Your task to perform on an android device: turn off improve location accuracy Image 0: 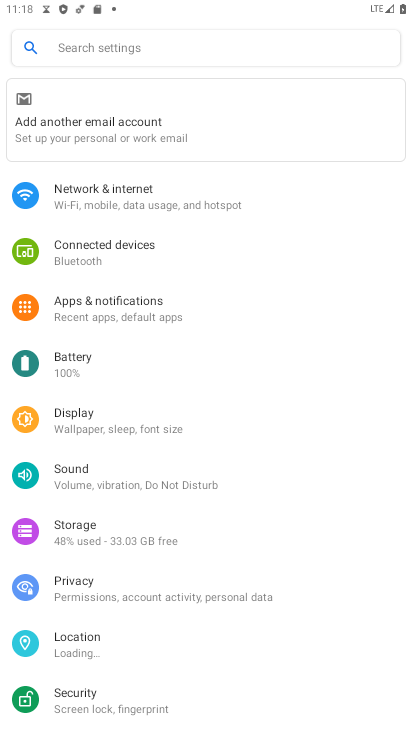
Step 0: press back button
Your task to perform on an android device: turn off improve location accuracy Image 1: 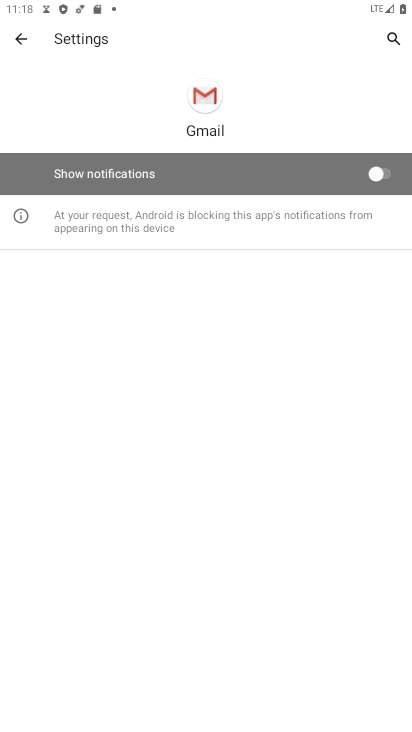
Step 1: press back button
Your task to perform on an android device: turn off improve location accuracy Image 2: 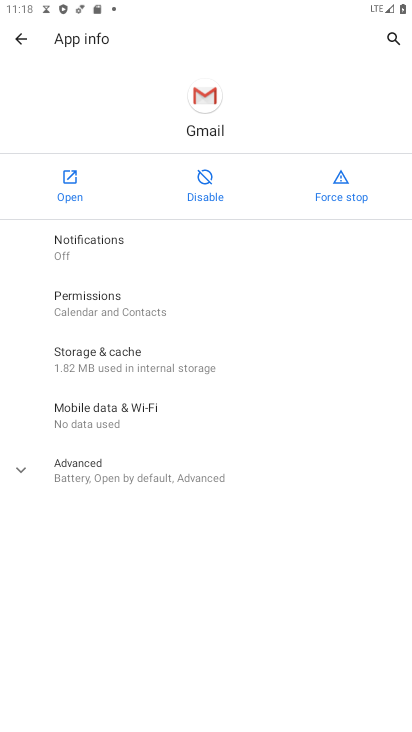
Step 2: press back button
Your task to perform on an android device: turn off improve location accuracy Image 3: 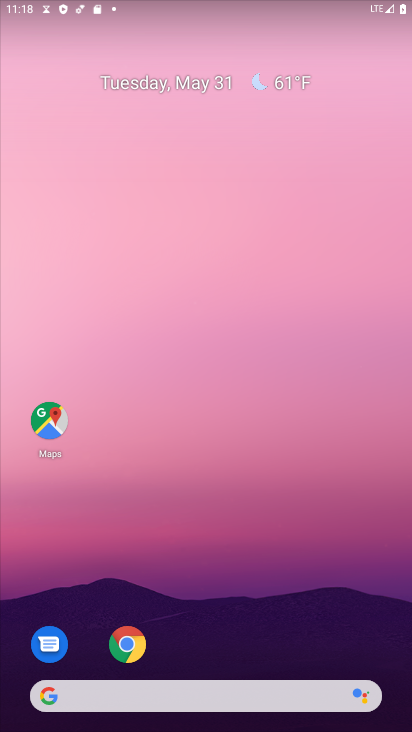
Step 3: drag from (232, 614) to (286, 99)
Your task to perform on an android device: turn off improve location accuracy Image 4: 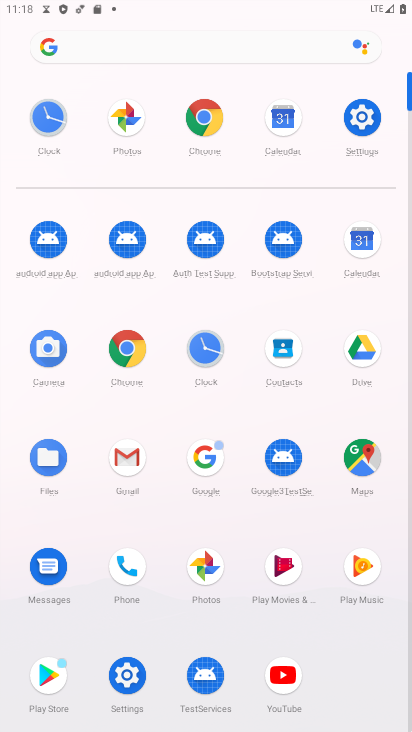
Step 4: click (364, 115)
Your task to perform on an android device: turn off improve location accuracy Image 5: 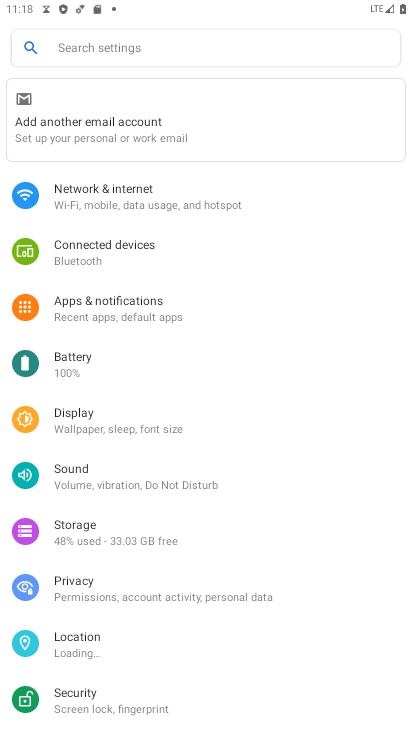
Step 5: click (80, 636)
Your task to perform on an android device: turn off improve location accuracy Image 6: 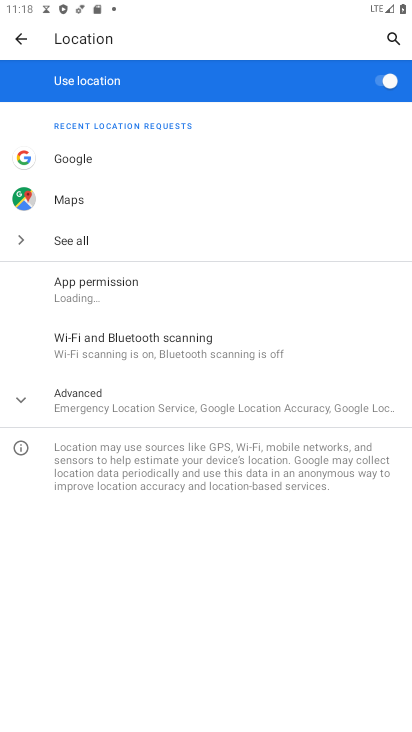
Step 6: click (131, 404)
Your task to perform on an android device: turn off improve location accuracy Image 7: 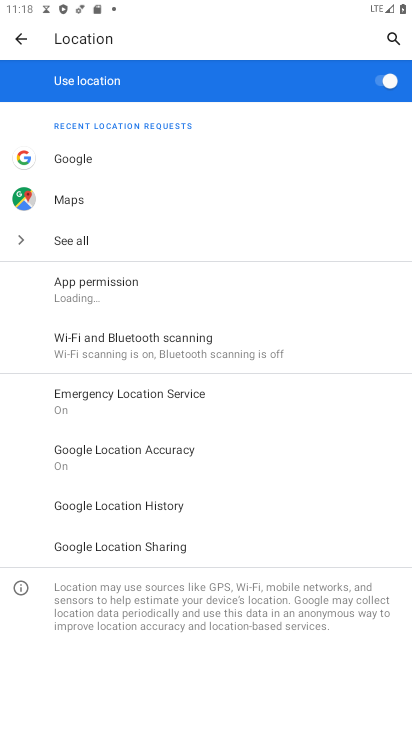
Step 7: click (147, 452)
Your task to perform on an android device: turn off improve location accuracy Image 8: 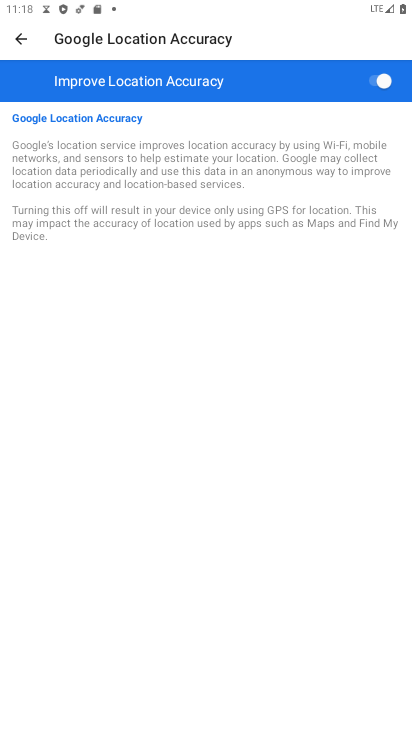
Step 8: click (380, 81)
Your task to perform on an android device: turn off improve location accuracy Image 9: 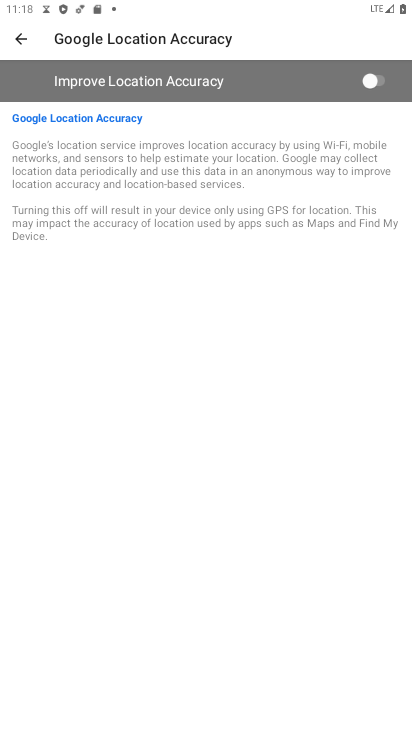
Step 9: task complete